Your task to perform on an android device: Go to Amazon Image 0: 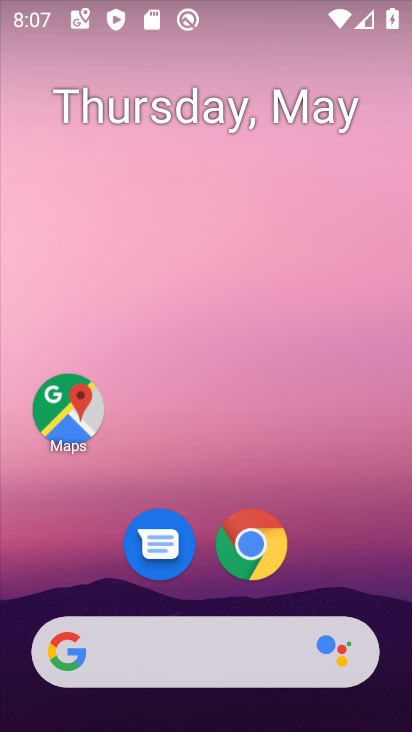
Step 0: press home button
Your task to perform on an android device: Go to Amazon Image 1: 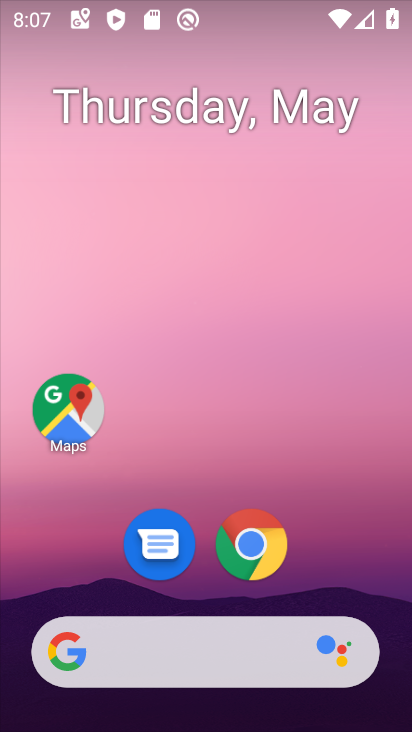
Step 1: click (257, 548)
Your task to perform on an android device: Go to Amazon Image 2: 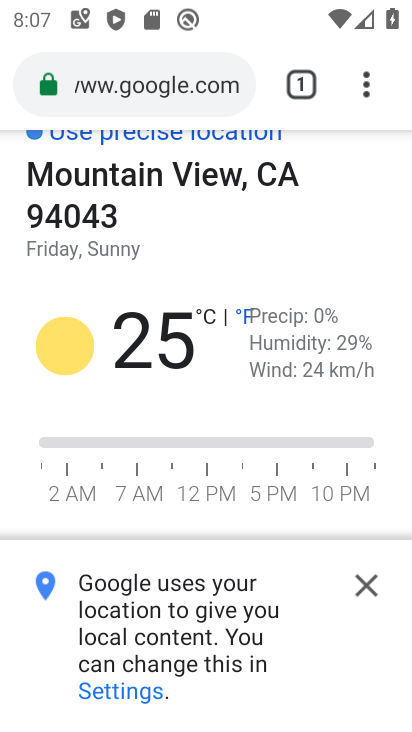
Step 2: click (125, 88)
Your task to perform on an android device: Go to Amazon Image 3: 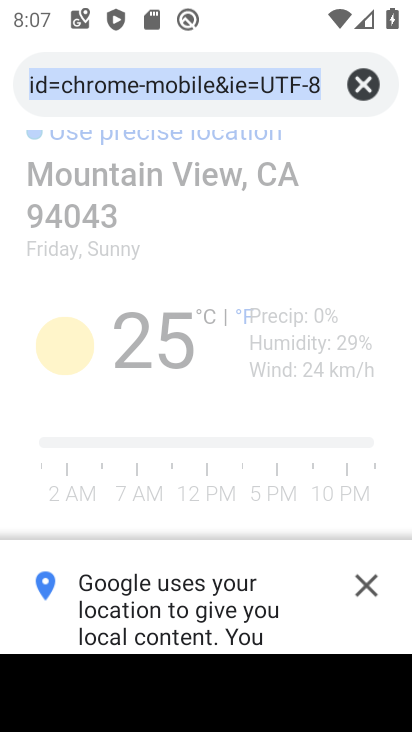
Step 3: click (361, 75)
Your task to perform on an android device: Go to Amazon Image 4: 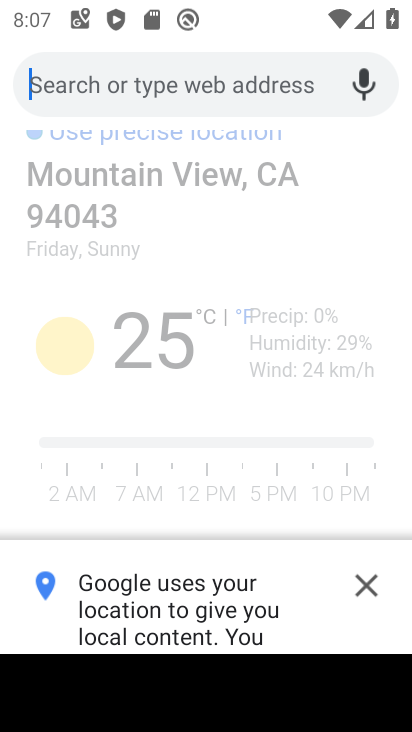
Step 4: type "Amazon"
Your task to perform on an android device: Go to Amazon Image 5: 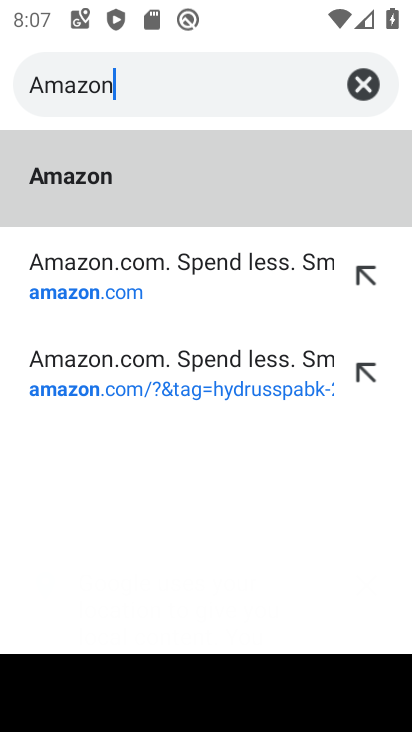
Step 5: click (132, 266)
Your task to perform on an android device: Go to Amazon Image 6: 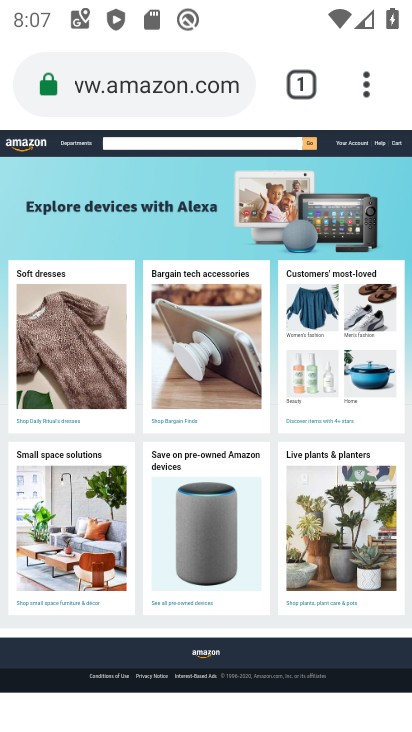
Step 6: task complete